Your task to perform on an android device: toggle notifications settings in the gmail app Image 0: 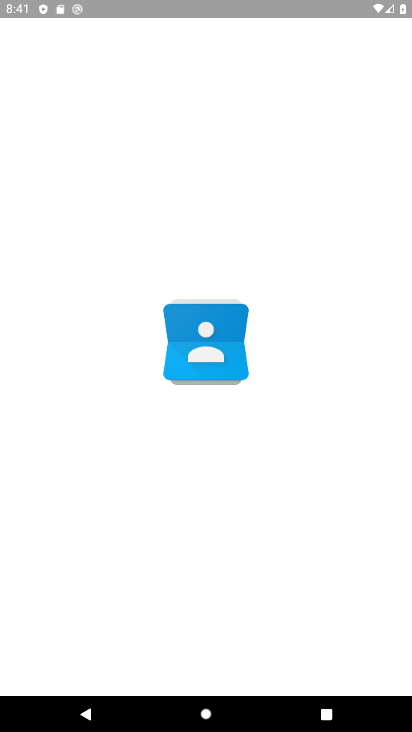
Step 0: drag from (307, 631) to (410, 344)
Your task to perform on an android device: toggle notifications settings in the gmail app Image 1: 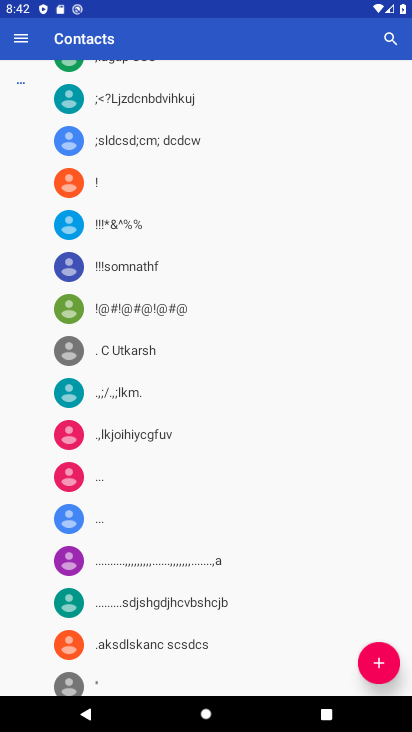
Step 1: press home button
Your task to perform on an android device: toggle notifications settings in the gmail app Image 2: 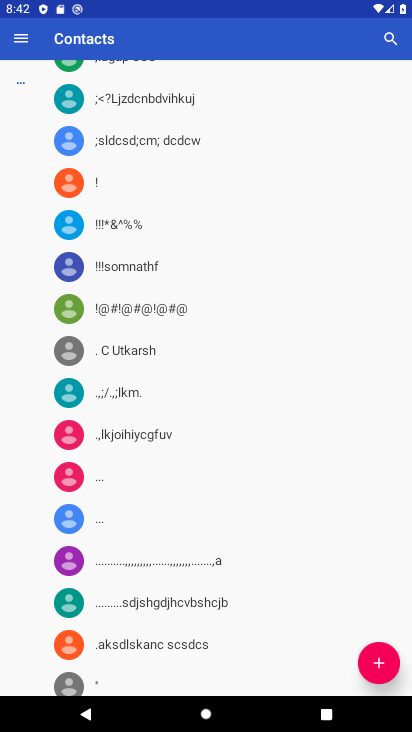
Step 2: drag from (410, 344) to (411, 509)
Your task to perform on an android device: toggle notifications settings in the gmail app Image 3: 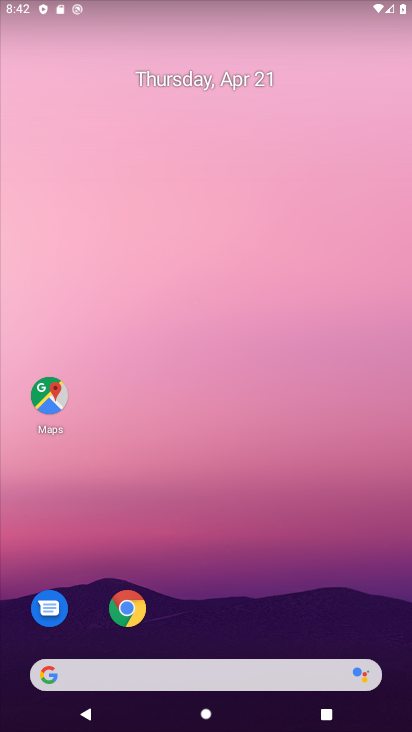
Step 3: drag from (277, 625) to (199, 218)
Your task to perform on an android device: toggle notifications settings in the gmail app Image 4: 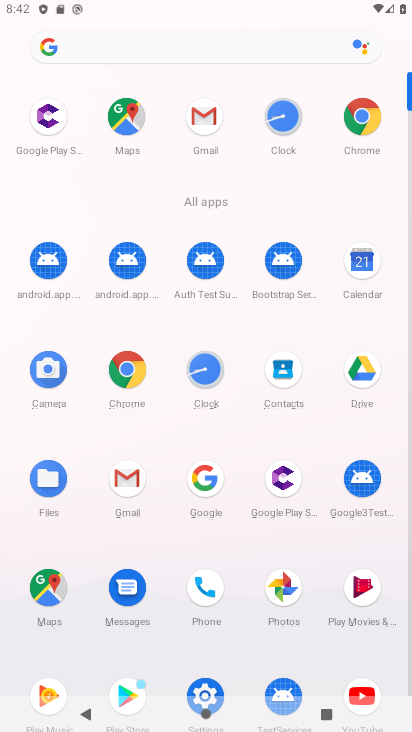
Step 4: click (201, 115)
Your task to perform on an android device: toggle notifications settings in the gmail app Image 5: 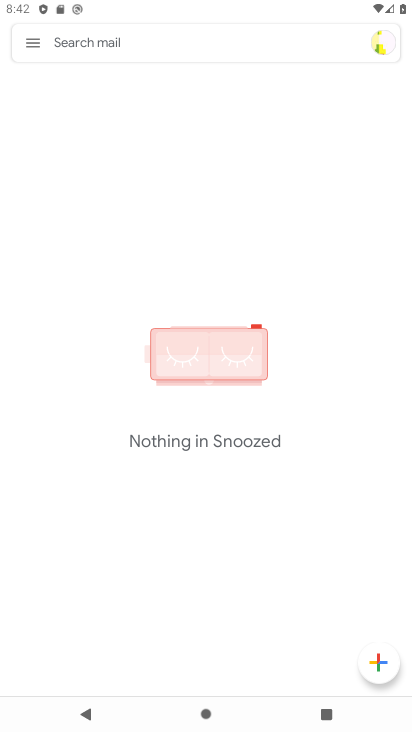
Step 5: click (40, 52)
Your task to perform on an android device: toggle notifications settings in the gmail app Image 6: 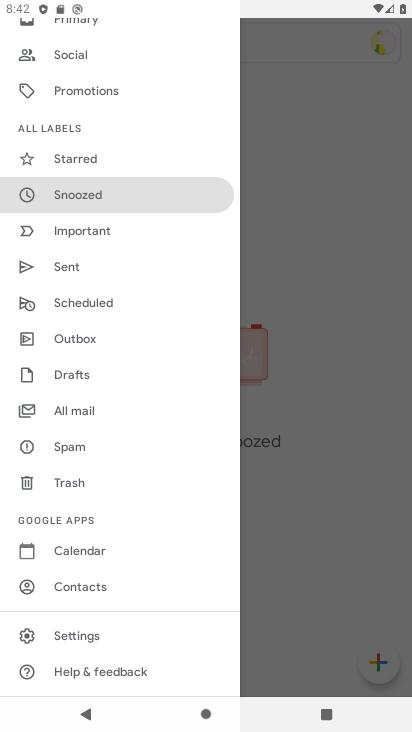
Step 6: click (149, 643)
Your task to perform on an android device: toggle notifications settings in the gmail app Image 7: 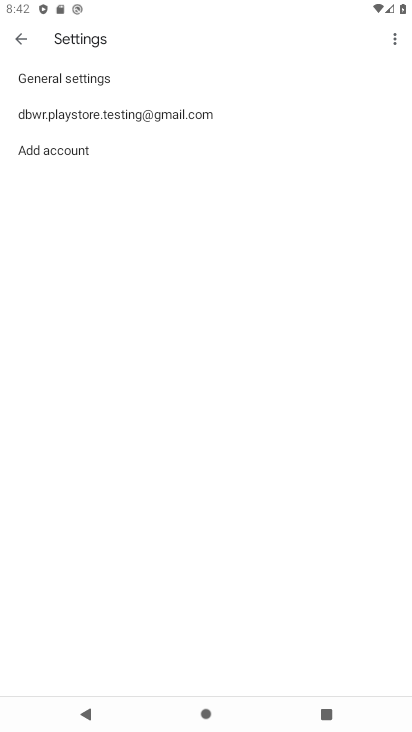
Step 7: click (211, 110)
Your task to perform on an android device: toggle notifications settings in the gmail app Image 8: 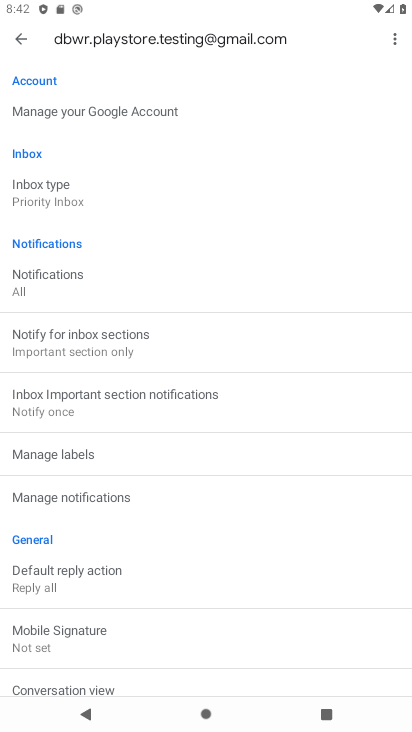
Step 8: click (170, 496)
Your task to perform on an android device: toggle notifications settings in the gmail app Image 9: 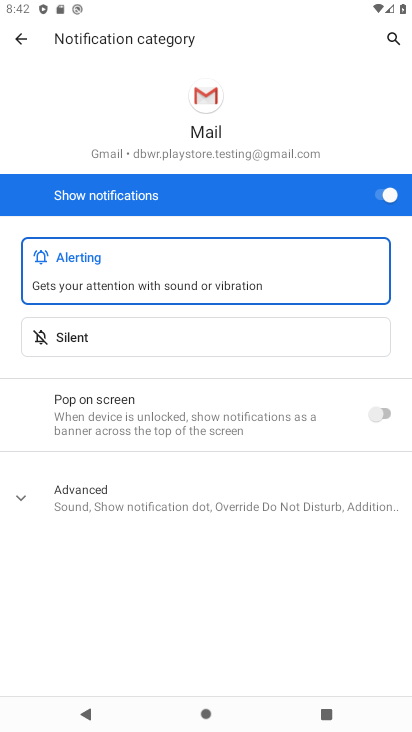
Step 9: click (273, 338)
Your task to perform on an android device: toggle notifications settings in the gmail app Image 10: 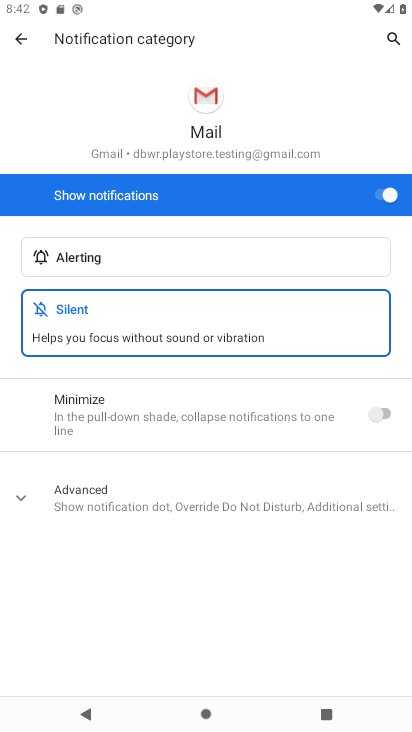
Step 10: click (377, 416)
Your task to perform on an android device: toggle notifications settings in the gmail app Image 11: 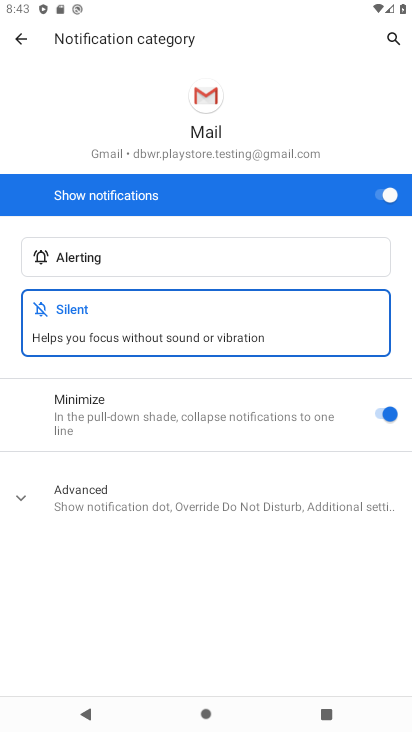
Step 11: task complete